Your task to perform on an android device: turn on showing notifications on the lock screen Image 0: 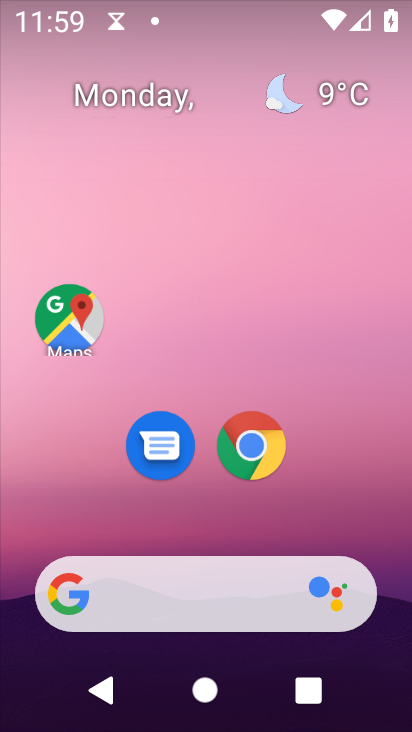
Step 0: drag from (163, 538) to (277, 5)
Your task to perform on an android device: turn on showing notifications on the lock screen Image 1: 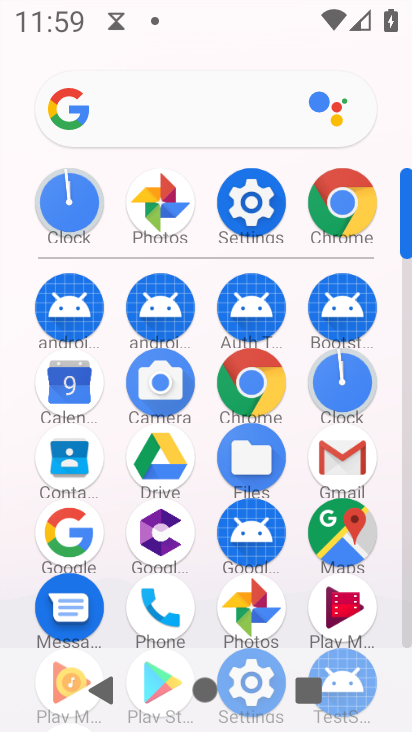
Step 1: click (264, 191)
Your task to perform on an android device: turn on showing notifications on the lock screen Image 2: 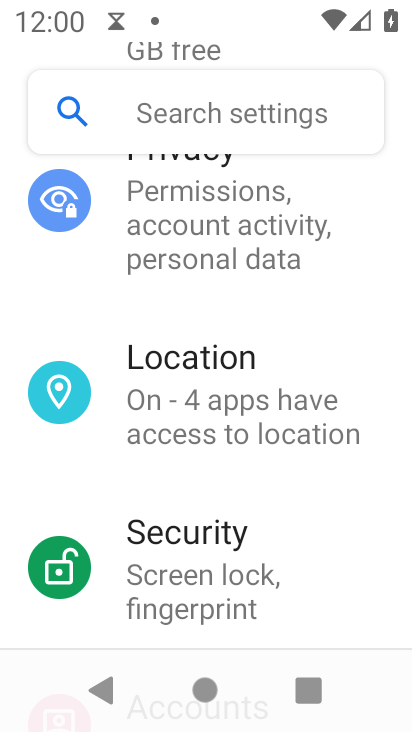
Step 2: drag from (221, 311) to (204, 641)
Your task to perform on an android device: turn on showing notifications on the lock screen Image 3: 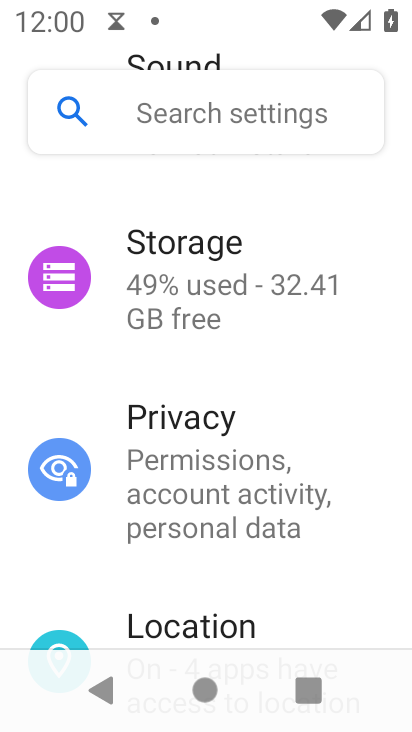
Step 3: drag from (236, 288) to (224, 563)
Your task to perform on an android device: turn on showing notifications on the lock screen Image 4: 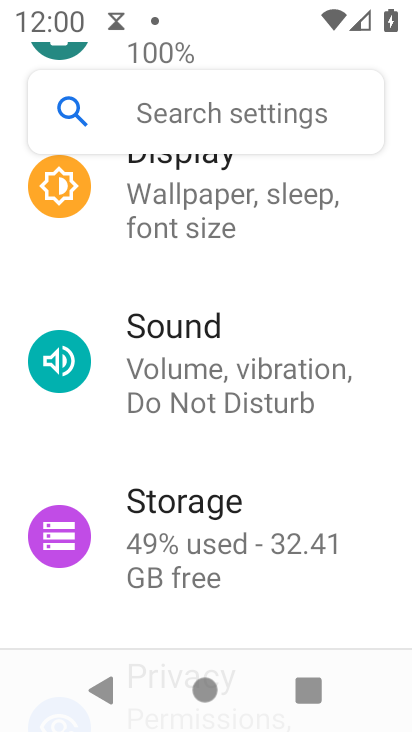
Step 4: drag from (246, 274) to (246, 730)
Your task to perform on an android device: turn on showing notifications on the lock screen Image 5: 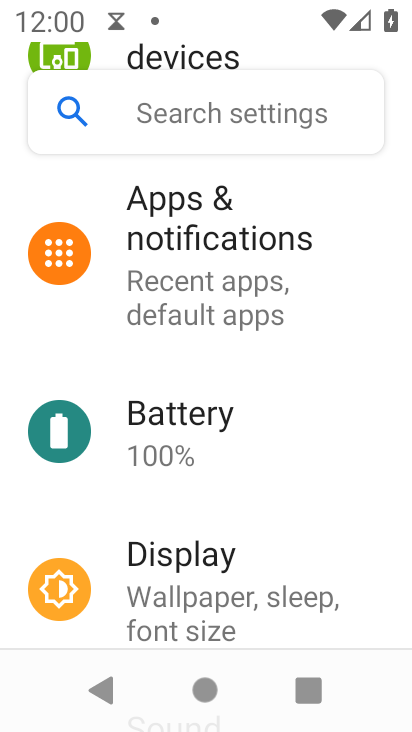
Step 5: drag from (254, 373) to (248, 559)
Your task to perform on an android device: turn on showing notifications on the lock screen Image 6: 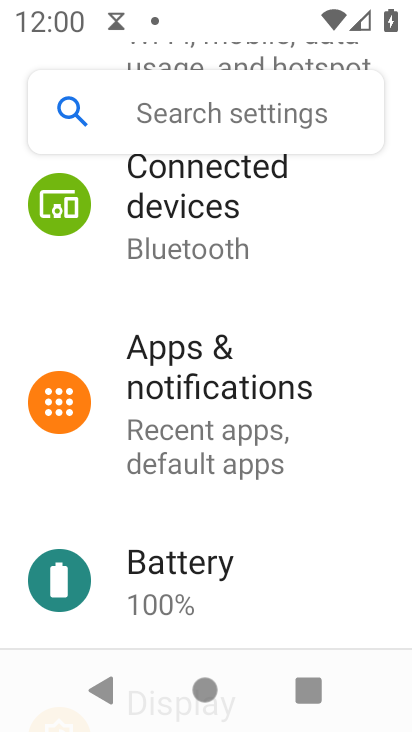
Step 6: click (248, 460)
Your task to perform on an android device: turn on showing notifications on the lock screen Image 7: 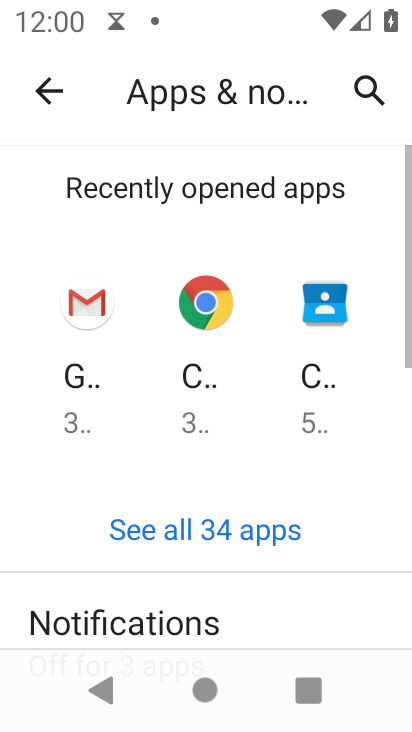
Step 7: drag from (251, 628) to (241, 294)
Your task to perform on an android device: turn on showing notifications on the lock screen Image 8: 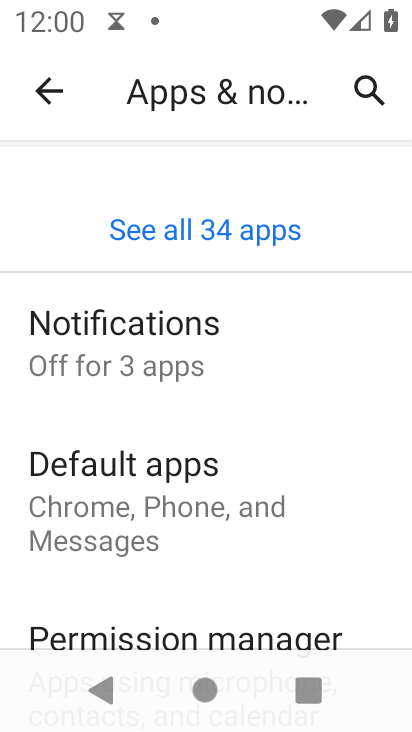
Step 8: click (192, 369)
Your task to perform on an android device: turn on showing notifications on the lock screen Image 9: 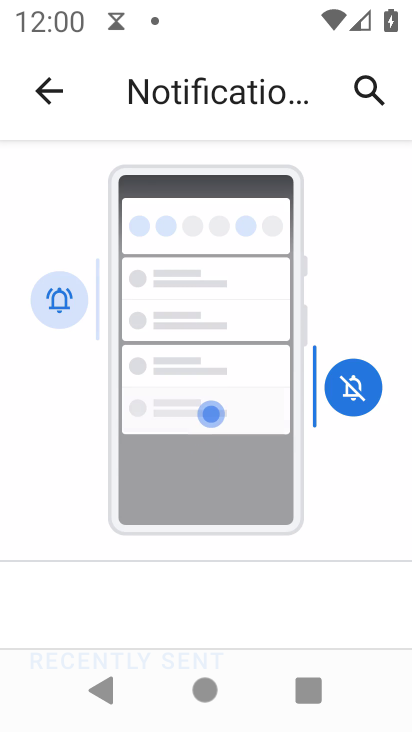
Step 9: drag from (231, 619) to (194, 160)
Your task to perform on an android device: turn on showing notifications on the lock screen Image 10: 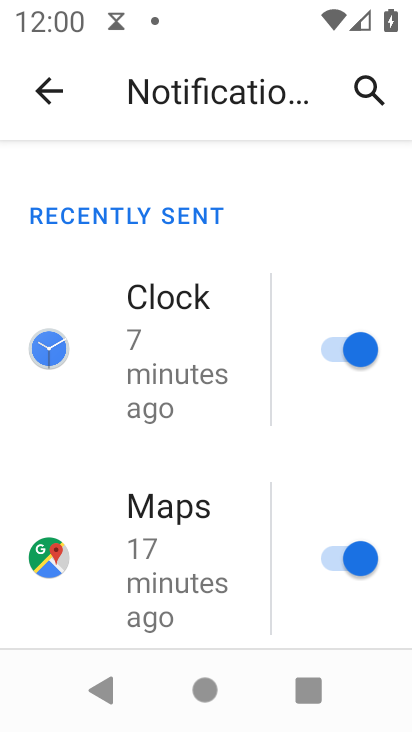
Step 10: drag from (216, 594) to (178, 206)
Your task to perform on an android device: turn on showing notifications on the lock screen Image 11: 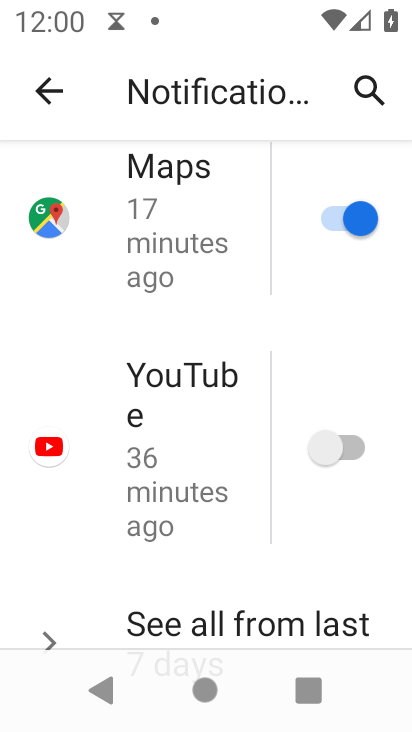
Step 11: drag from (234, 595) to (237, 173)
Your task to perform on an android device: turn on showing notifications on the lock screen Image 12: 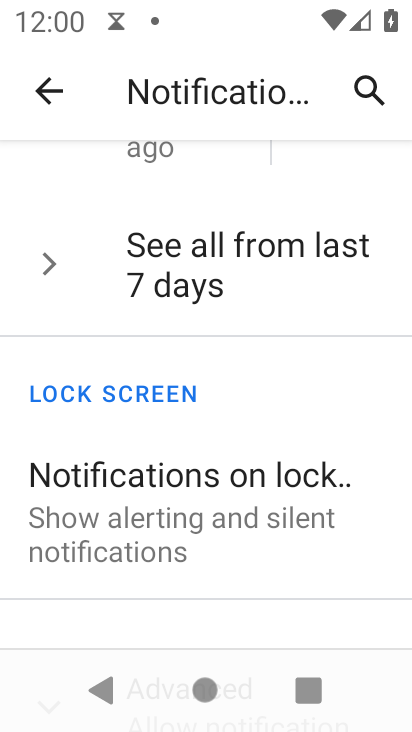
Step 12: click (271, 506)
Your task to perform on an android device: turn on showing notifications on the lock screen Image 13: 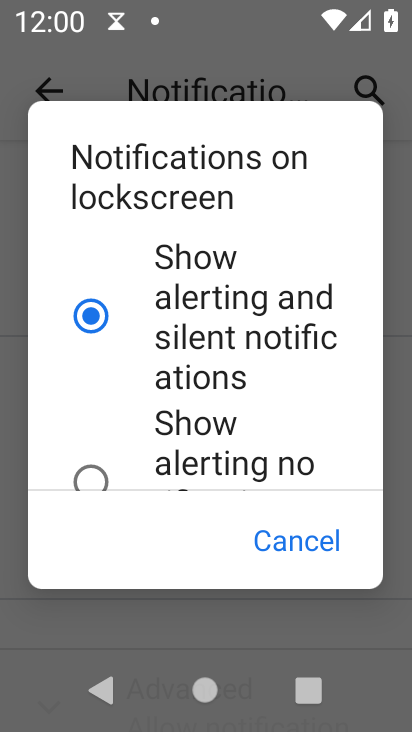
Step 13: task complete